Your task to perform on an android device: Open the web browser Image 0: 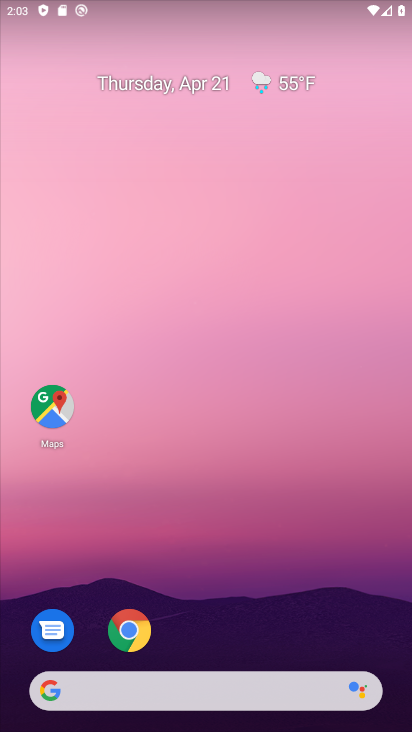
Step 0: click (141, 638)
Your task to perform on an android device: Open the web browser Image 1: 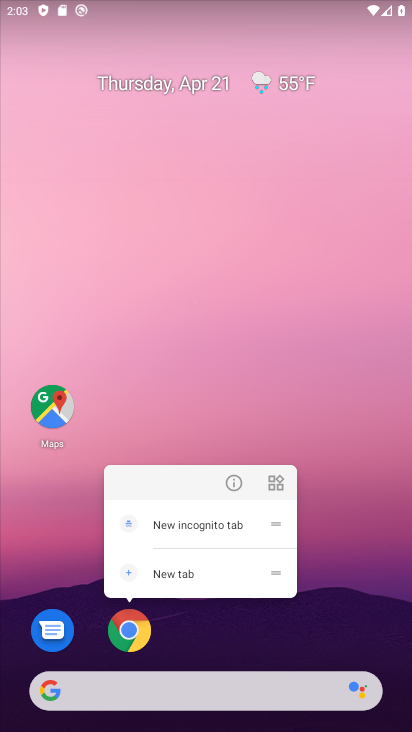
Step 1: click (129, 644)
Your task to perform on an android device: Open the web browser Image 2: 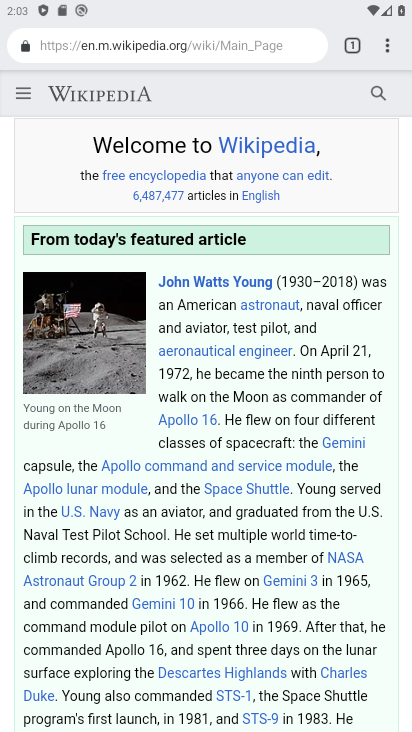
Step 2: task complete